Your task to perform on an android device: check android version Image 0: 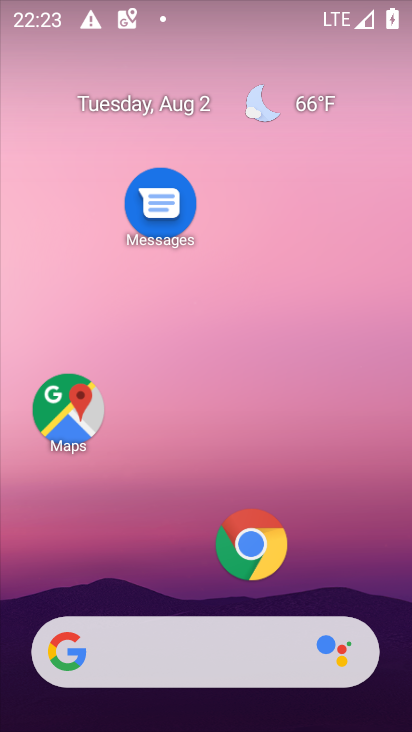
Step 0: drag from (186, 578) to (196, 228)
Your task to perform on an android device: check android version Image 1: 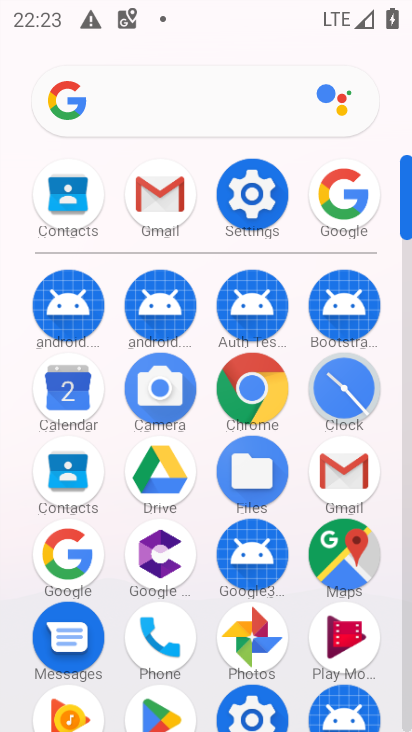
Step 1: click (244, 190)
Your task to perform on an android device: check android version Image 2: 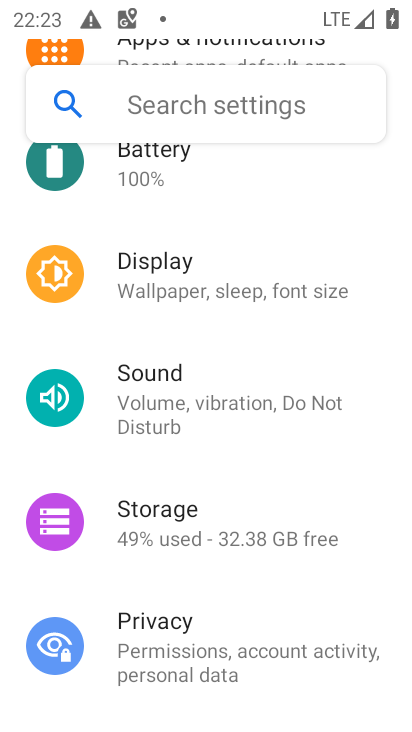
Step 2: drag from (252, 696) to (196, 244)
Your task to perform on an android device: check android version Image 3: 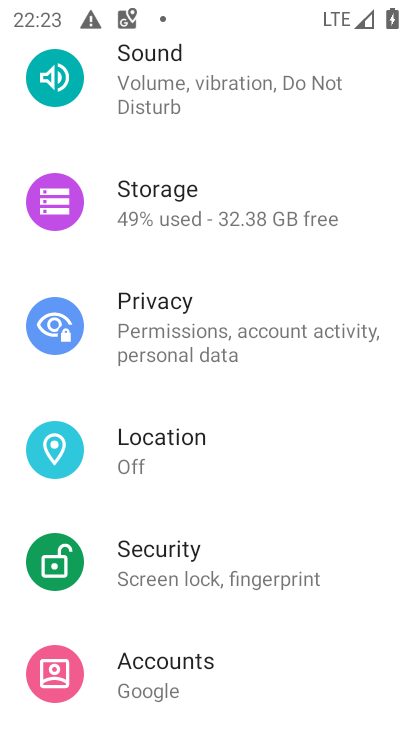
Step 3: drag from (209, 672) to (232, 163)
Your task to perform on an android device: check android version Image 4: 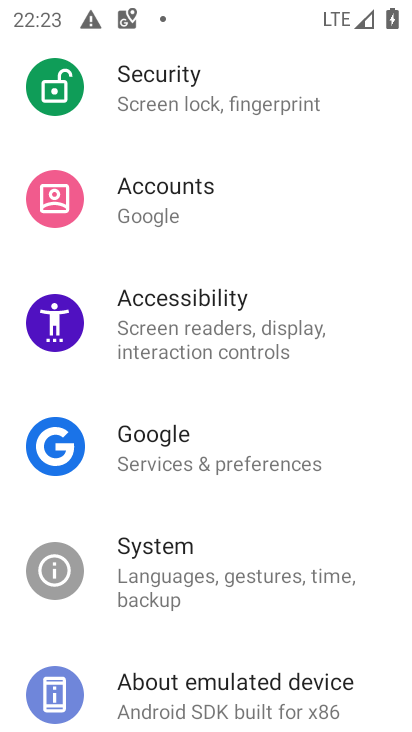
Step 4: drag from (225, 668) to (245, 312)
Your task to perform on an android device: check android version Image 5: 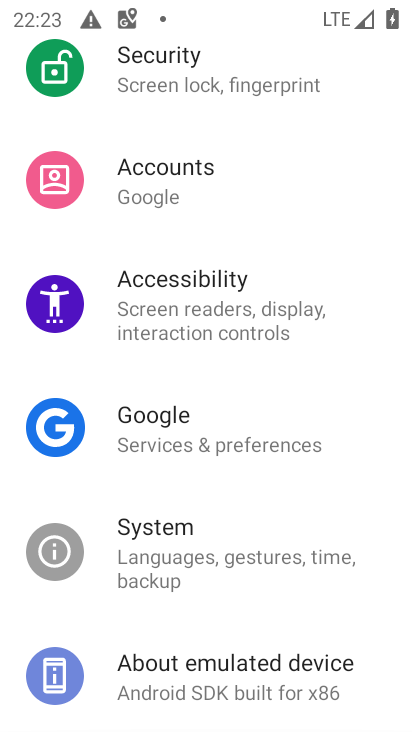
Step 5: click (258, 665)
Your task to perform on an android device: check android version Image 6: 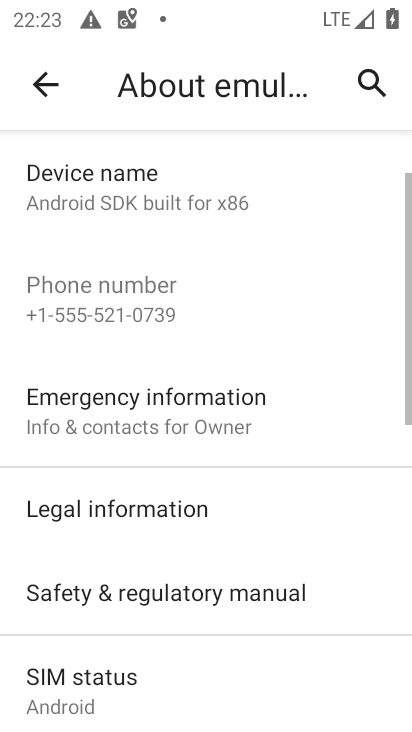
Step 6: drag from (176, 584) to (197, 241)
Your task to perform on an android device: check android version Image 7: 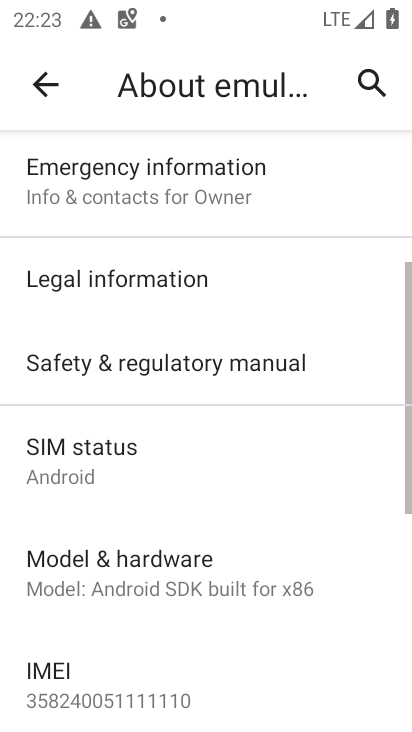
Step 7: drag from (198, 597) to (205, 285)
Your task to perform on an android device: check android version Image 8: 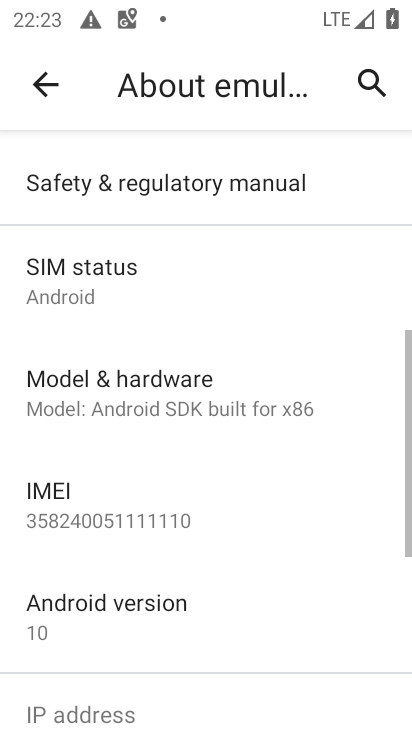
Step 8: click (171, 625)
Your task to perform on an android device: check android version Image 9: 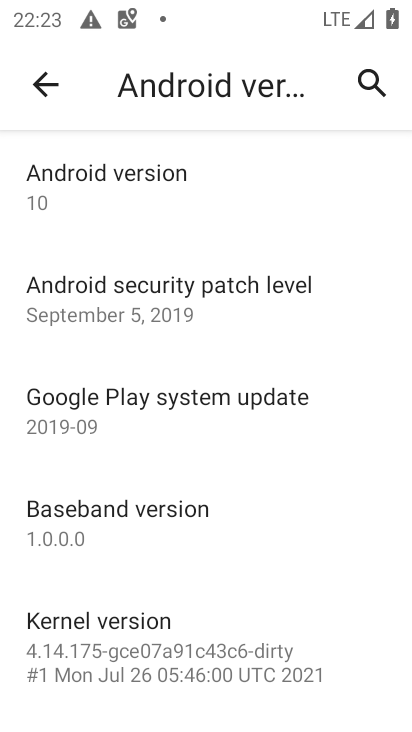
Step 9: click (142, 189)
Your task to perform on an android device: check android version Image 10: 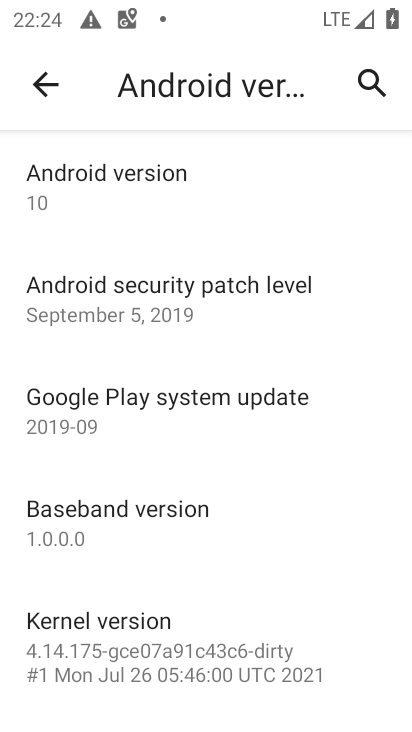
Step 10: click (101, 168)
Your task to perform on an android device: check android version Image 11: 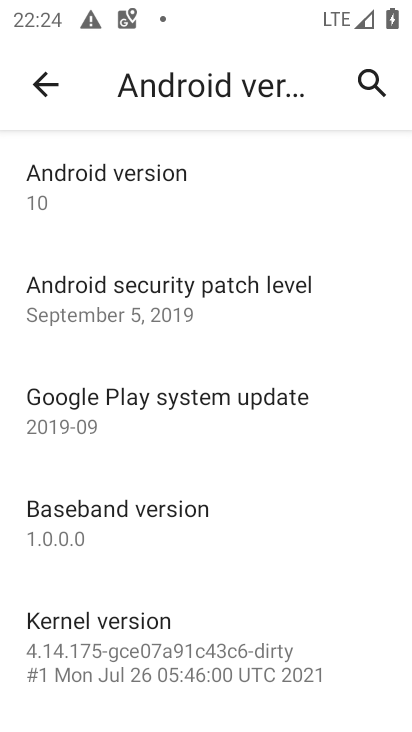
Step 11: task complete